Your task to perform on an android device: Go to CNN.com Image 0: 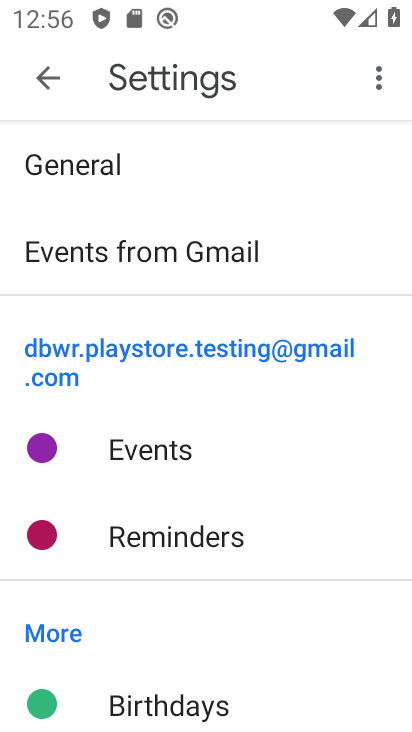
Step 0: press home button
Your task to perform on an android device: Go to CNN.com Image 1: 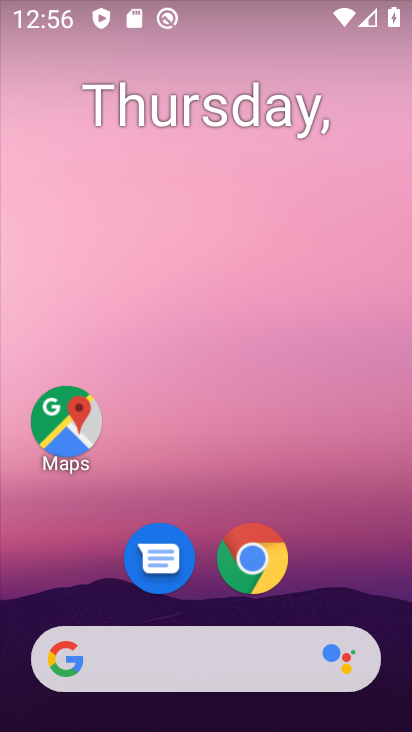
Step 1: drag from (352, 575) to (329, 134)
Your task to perform on an android device: Go to CNN.com Image 2: 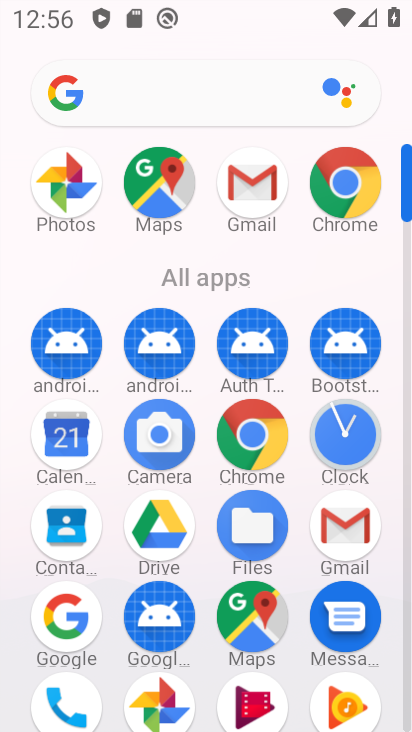
Step 2: click (352, 176)
Your task to perform on an android device: Go to CNN.com Image 3: 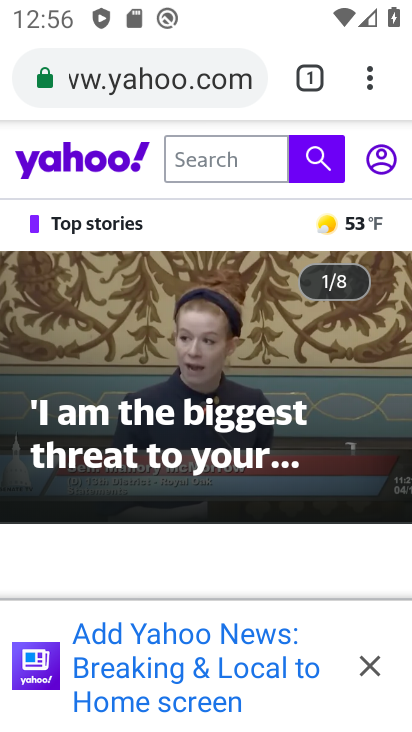
Step 3: click (208, 86)
Your task to perform on an android device: Go to CNN.com Image 4: 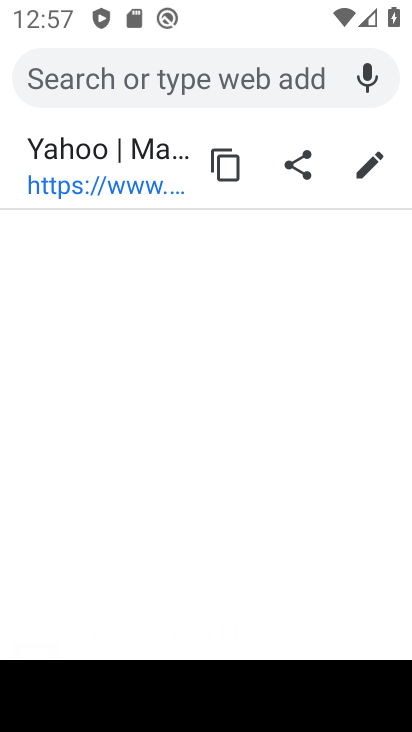
Step 4: type "CNN.com"
Your task to perform on an android device: Go to CNN.com Image 5: 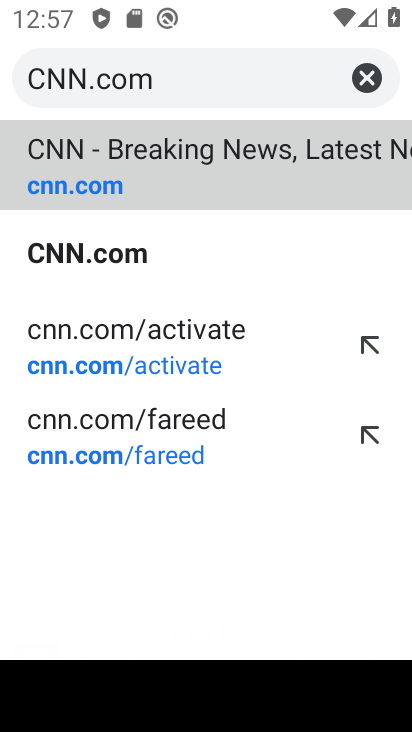
Step 5: click (90, 184)
Your task to perform on an android device: Go to CNN.com Image 6: 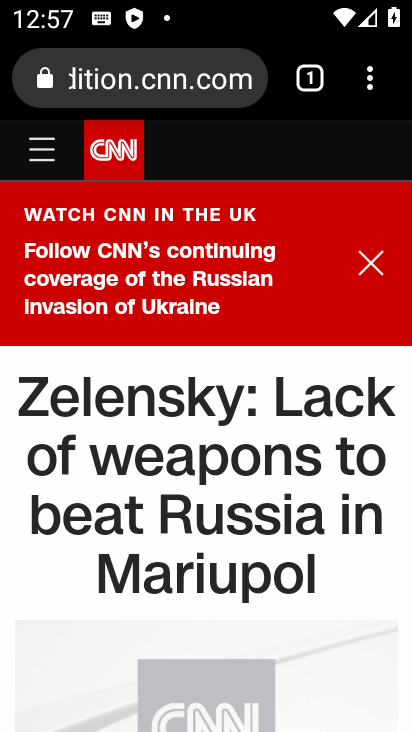
Step 6: task complete